Your task to perform on an android device: Go to Wikipedia Image 0: 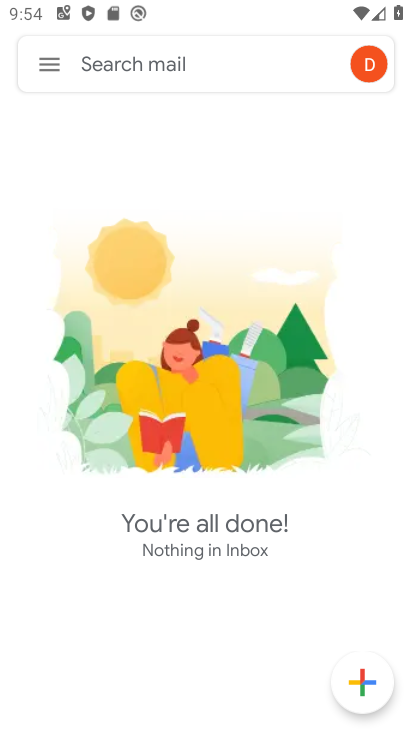
Step 0: press back button
Your task to perform on an android device: Go to Wikipedia Image 1: 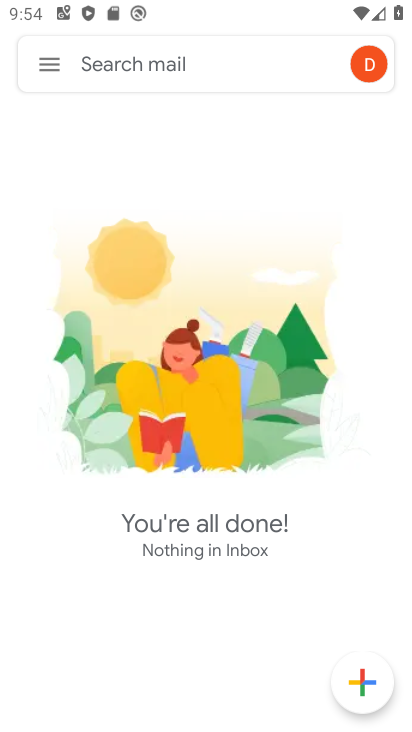
Step 1: press home button
Your task to perform on an android device: Go to Wikipedia Image 2: 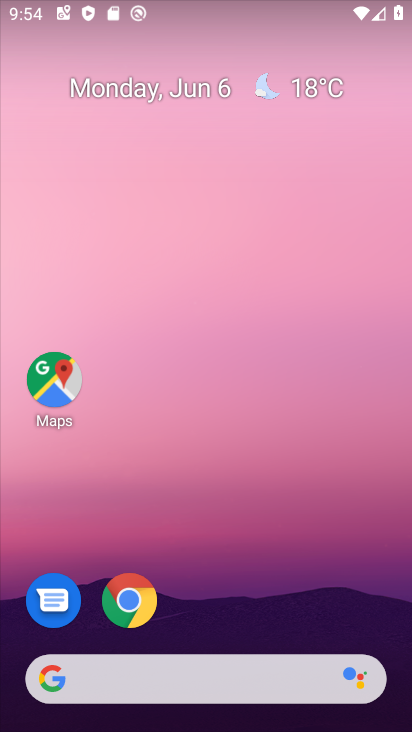
Step 2: drag from (258, 602) to (199, 22)
Your task to perform on an android device: Go to Wikipedia Image 3: 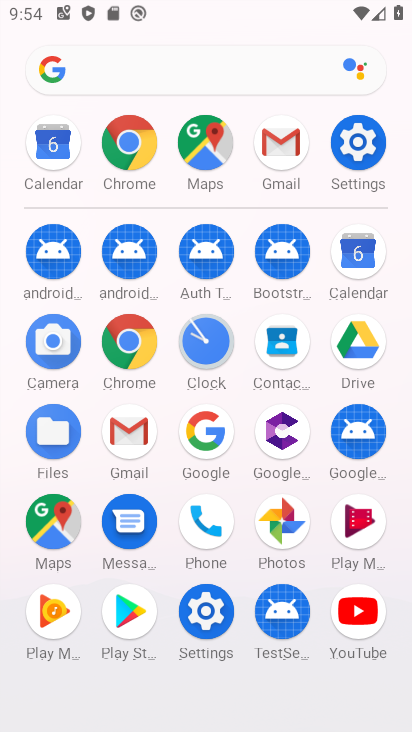
Step 3: click (121, 336)
Your task to perform on an android device: Go to Wikipedia Image 4: 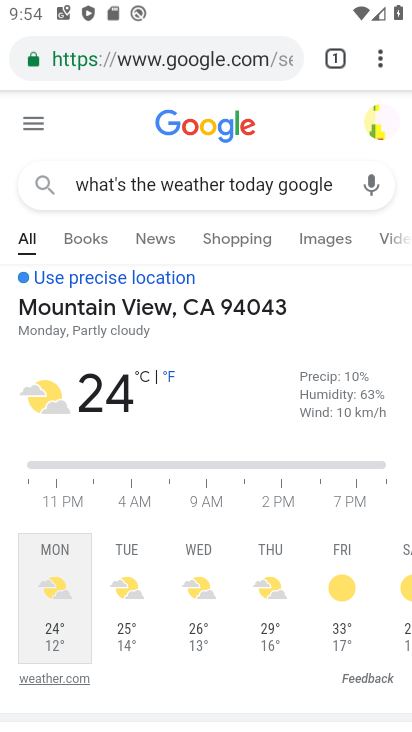
Step 4: click (148, 60)
Your task to perform on an android device: Go to Wikipedia Image 5: 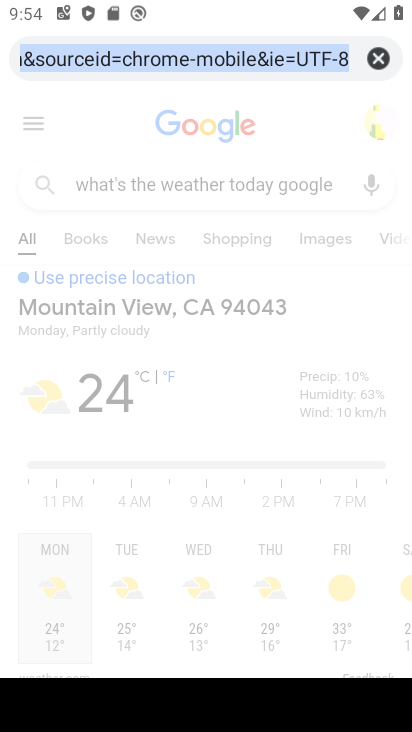
Step 5: click (370, 51)
Your task to perform on an android device: Go to Wikipedia Image 6: 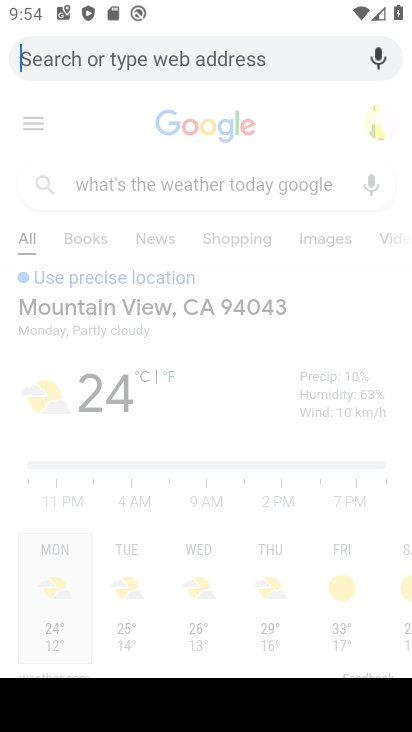
Step 6: type "Wikipedia"
Your task to perform on an android device: Go to Wikipedia Image 7: 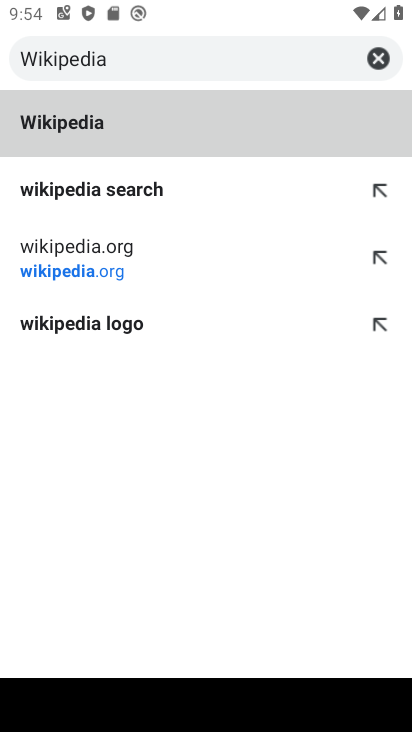
Step 7: click (122, 251)
Your task to perform on an android device: Go to Wikipedia Image 8: 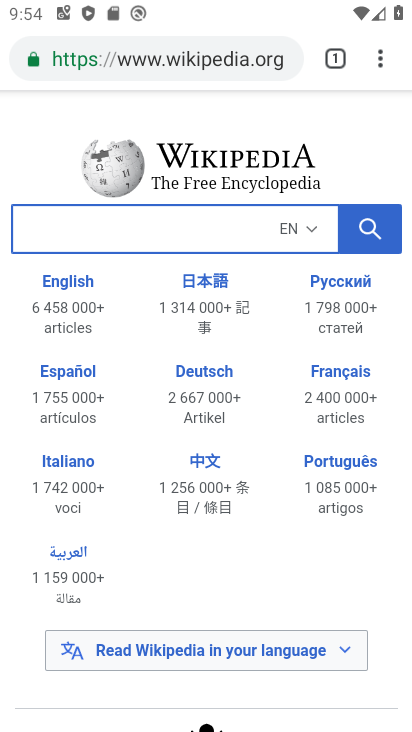
Step 8: task complete